Your task to perform on an android device: Search for "amazon basics triple a" on ebay, select the first entry, and add it to the cart. Image 0: 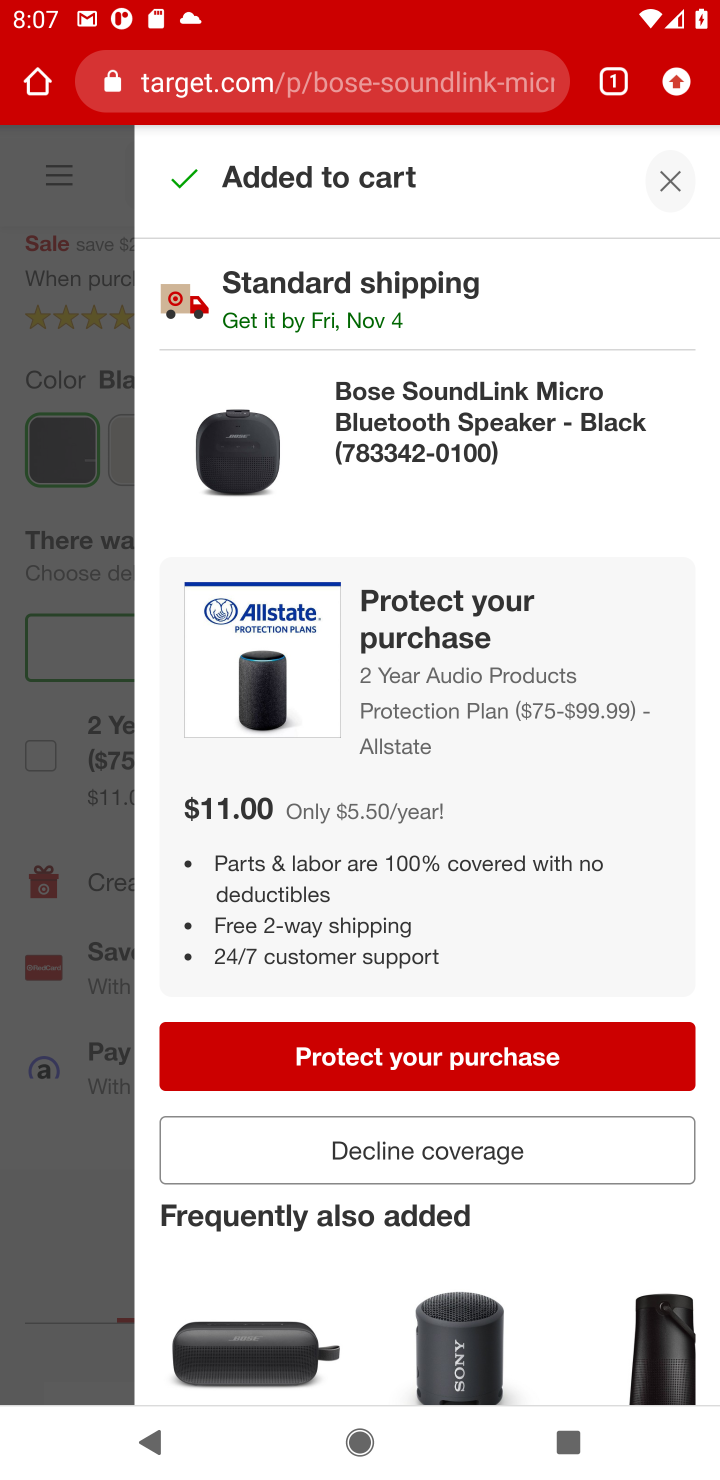
Step 0: click (232, 101)
Your task to perform on an android device: Search for "amazon basics triple a" on ebay, select the first entry, and add it to the cart. Image 1: 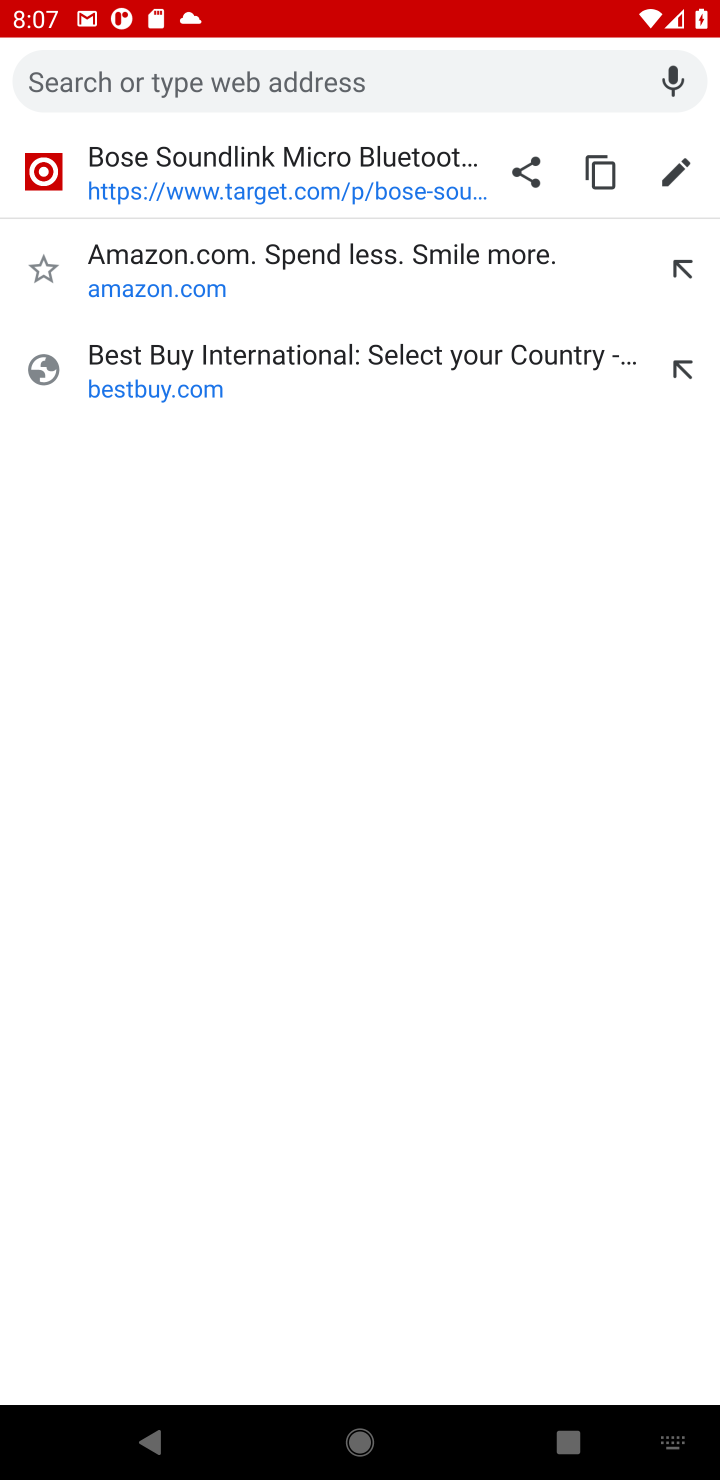
Step 1: type "ebay"
Your task to perform on an android device: Search for "amazon basics triple a" on ebay, select the first entry, and add it to the cart. Image 2: 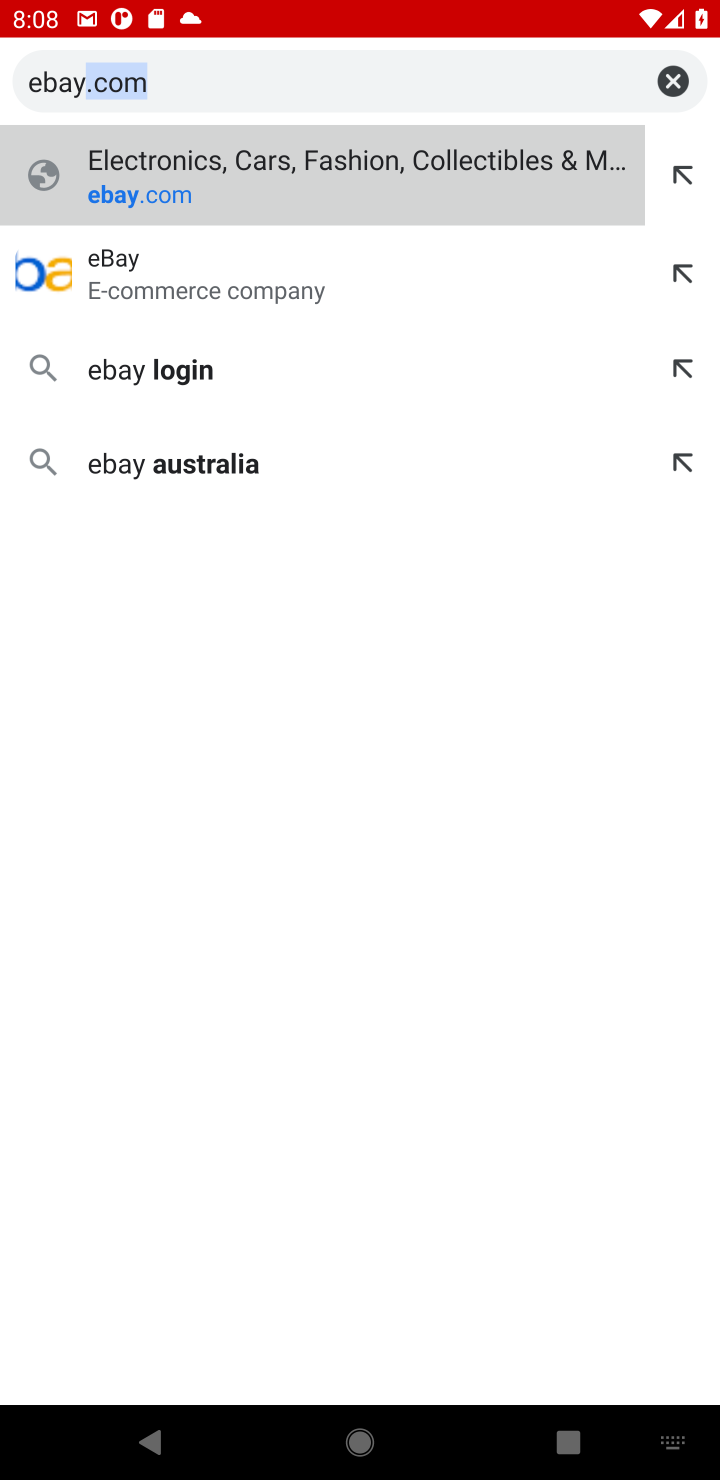
Step 2: click (310, 278)
Your task to perform on an android device: Search for "amazon basics triple a" on ebay, select the first entry, and add it to the cart. Image 3: 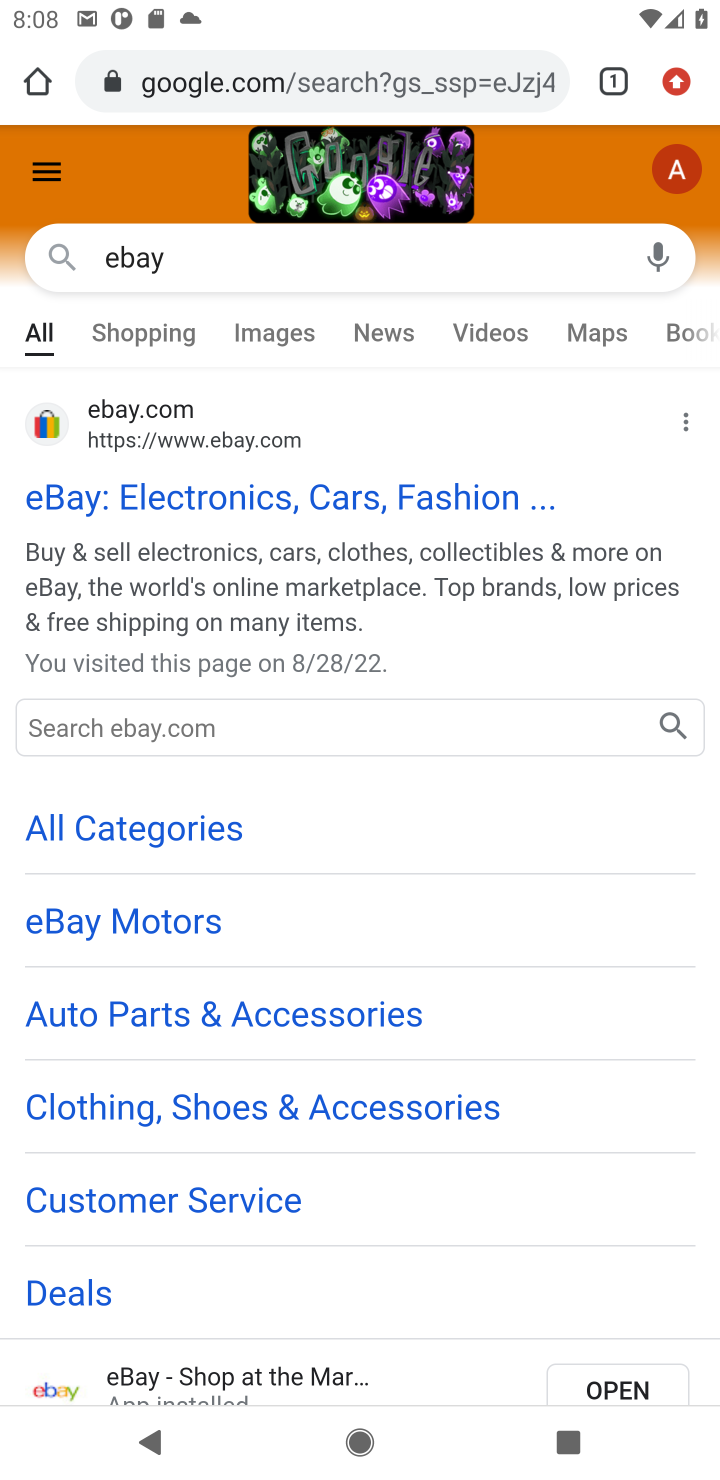
Step 3: click (239, 501)
Your task to perform on an android device: Search for "amazon basics triple a" on ebay, select the first entry, and add it to the cart. Image 4: 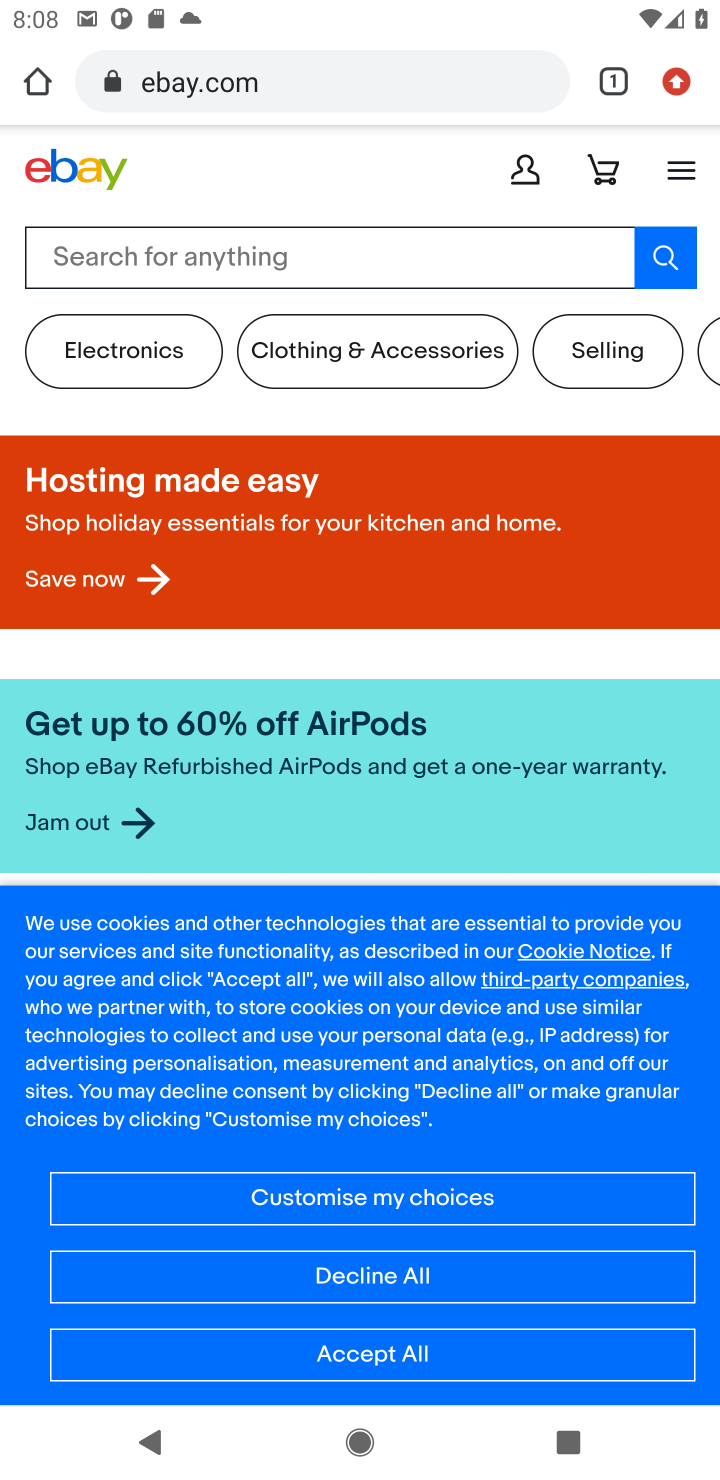
Step 4: click (196, 256)
Your task to perform on an android device: Search for "amazon basics triple a" on ebay, select the first entry, and add it to the cart. Image 5: 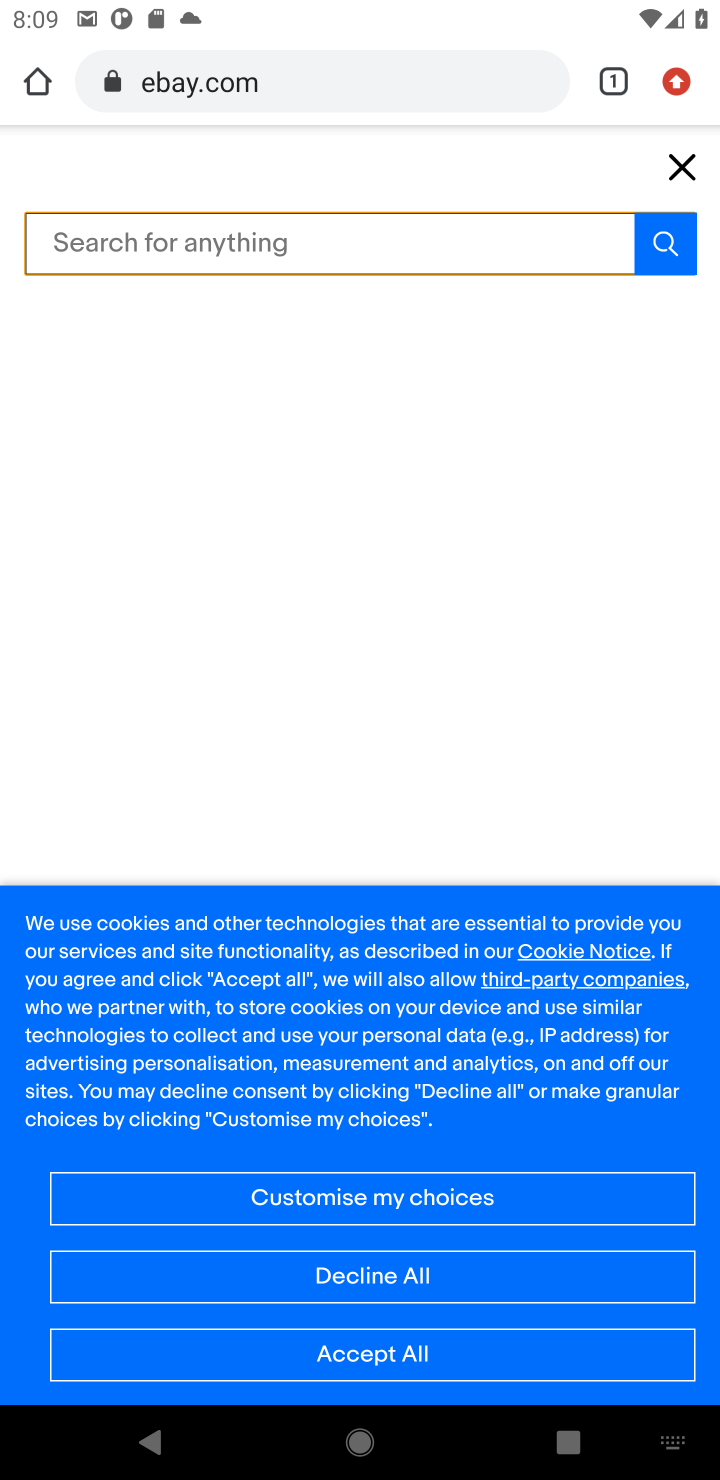
Step 5: type "amazon basics triple a"
Your task to perform on an android device: Search for "amazon basics triple a" on ebay, select the first entry, and add it to the cart. Image 6: 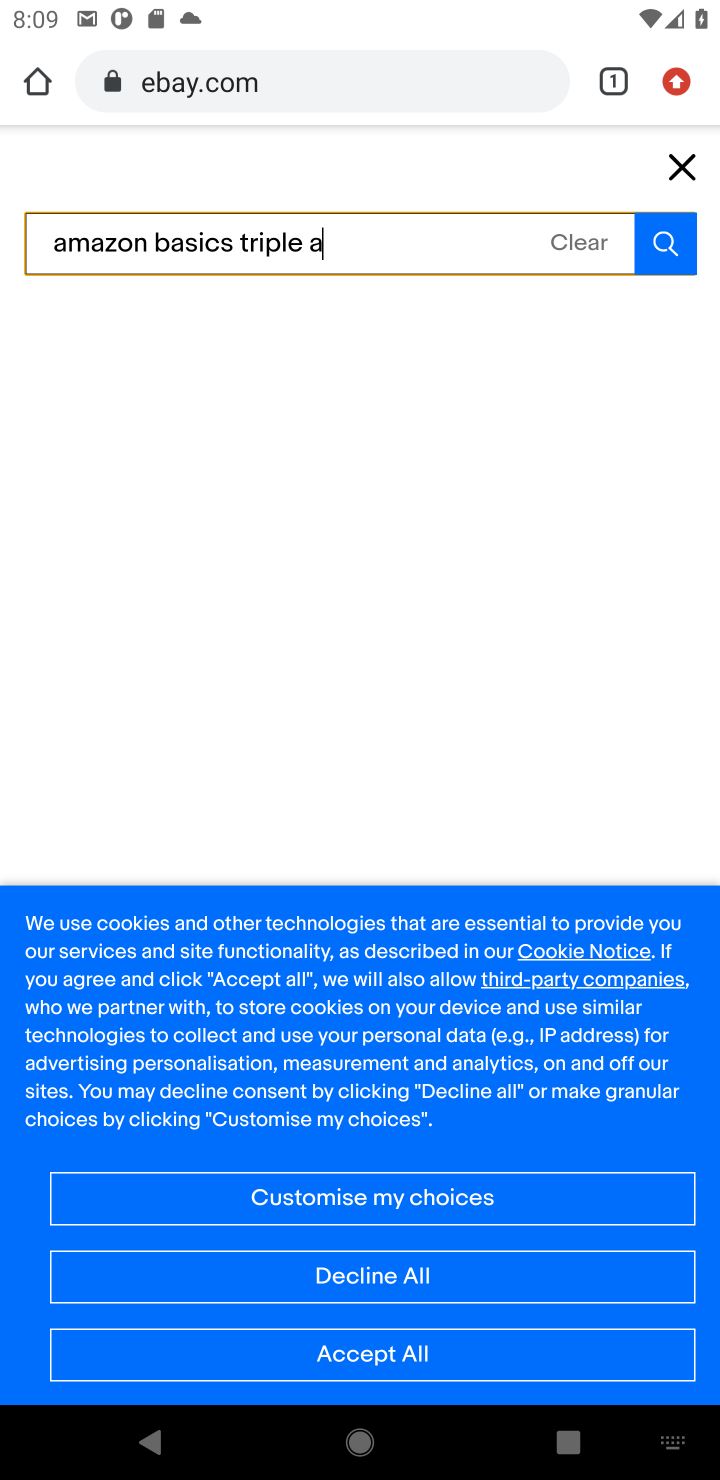
Step 6: click (684, 252)
Your task to perform on an android device: Search for "amazon basics triple a" on ebay, select the first entry, and add it to the cart. Image 7: 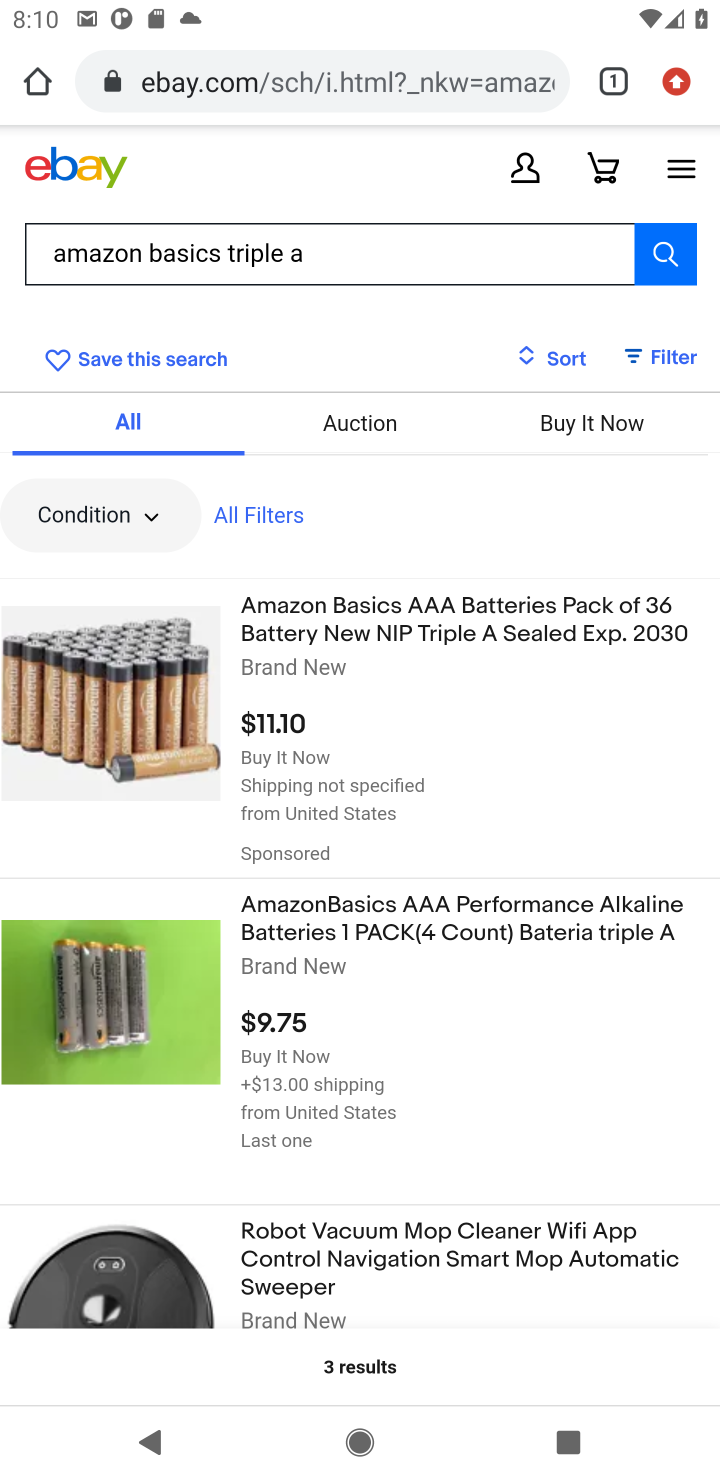
Step 7: click (262, 632)
Your task to perform on an android device: Search for "amazon basics triple a" on ebay, select the first entry, and add it to the cart. Image 8: 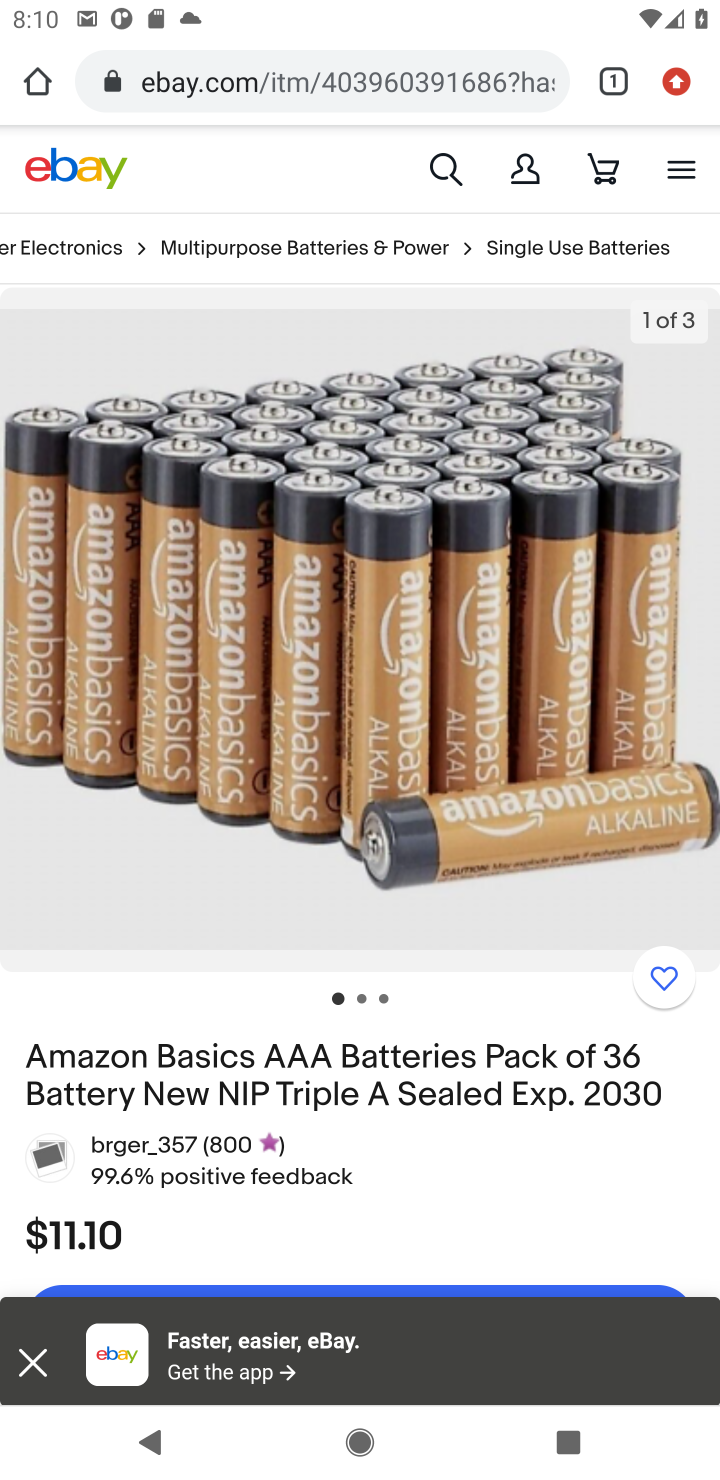
Step 8: click (19, 1357)
Your task to perform on an android device: Search for "amazon basics triple a" on ebay, select the first entry, and add it to the cart. Image 9: 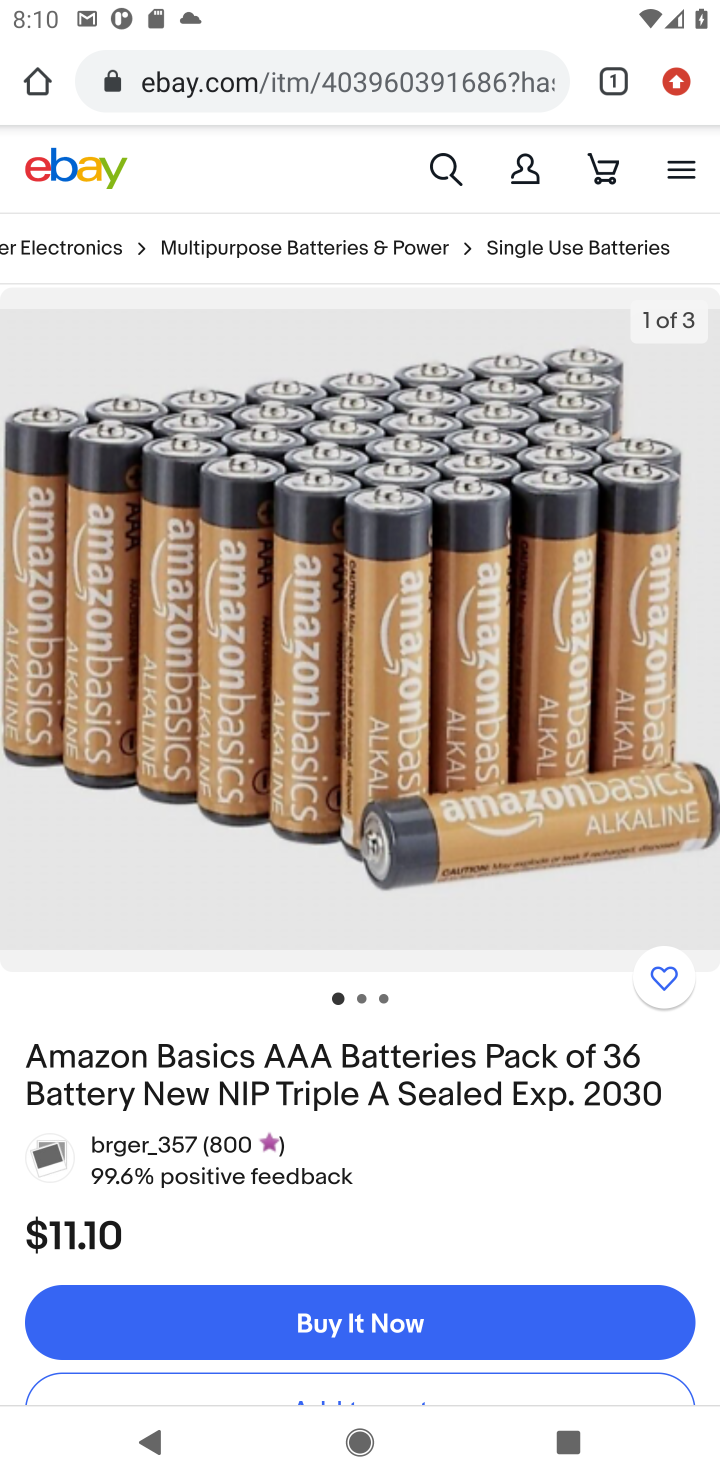
Step 9: drag from (361, 633) to (368, 448)
Your task to perform on an android device: Search for "amazon basics triple a" on ebay, select the first entry, and add it to the cart. Image 10: 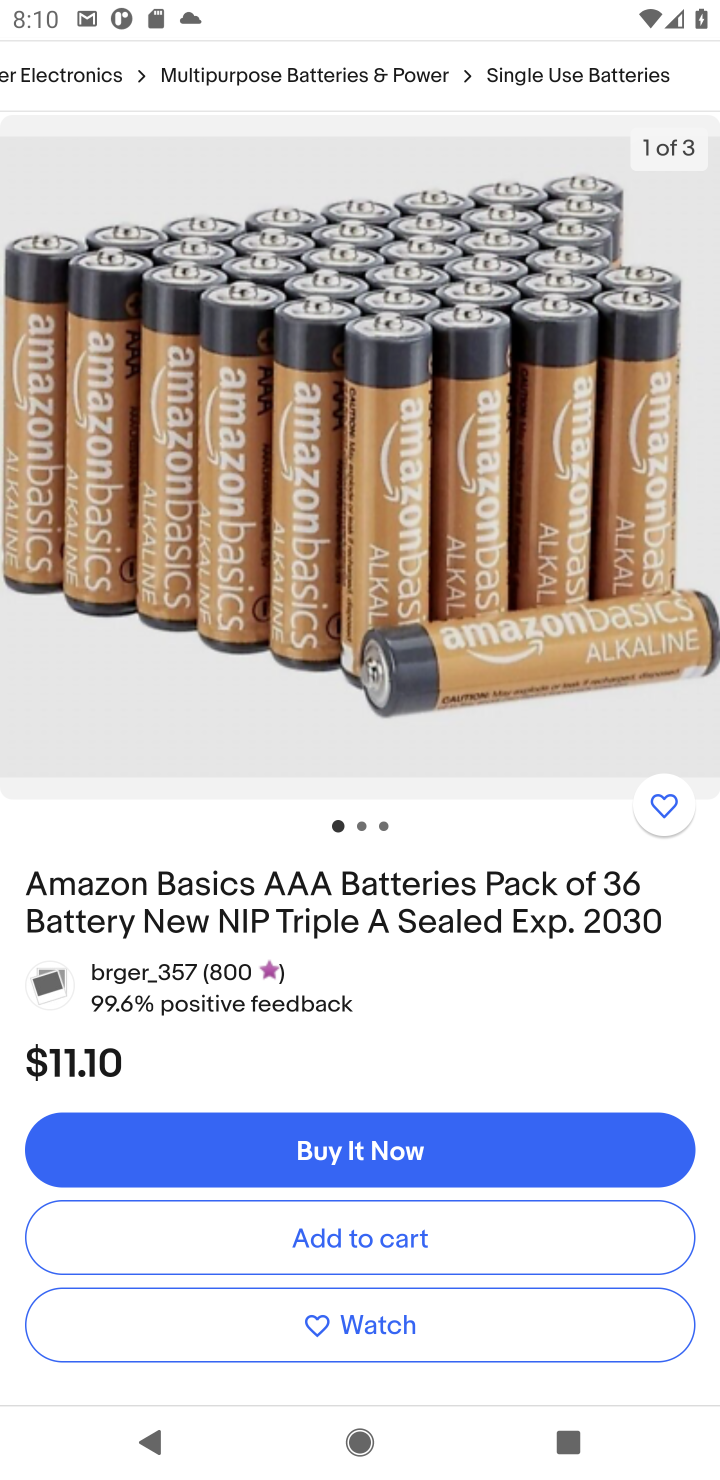
Step 10: click (355, 1238)
Your task to perform on an android device: Search for "amazon basics triple a" on ebay, select the first entry, and add it to the cart. Image 11: 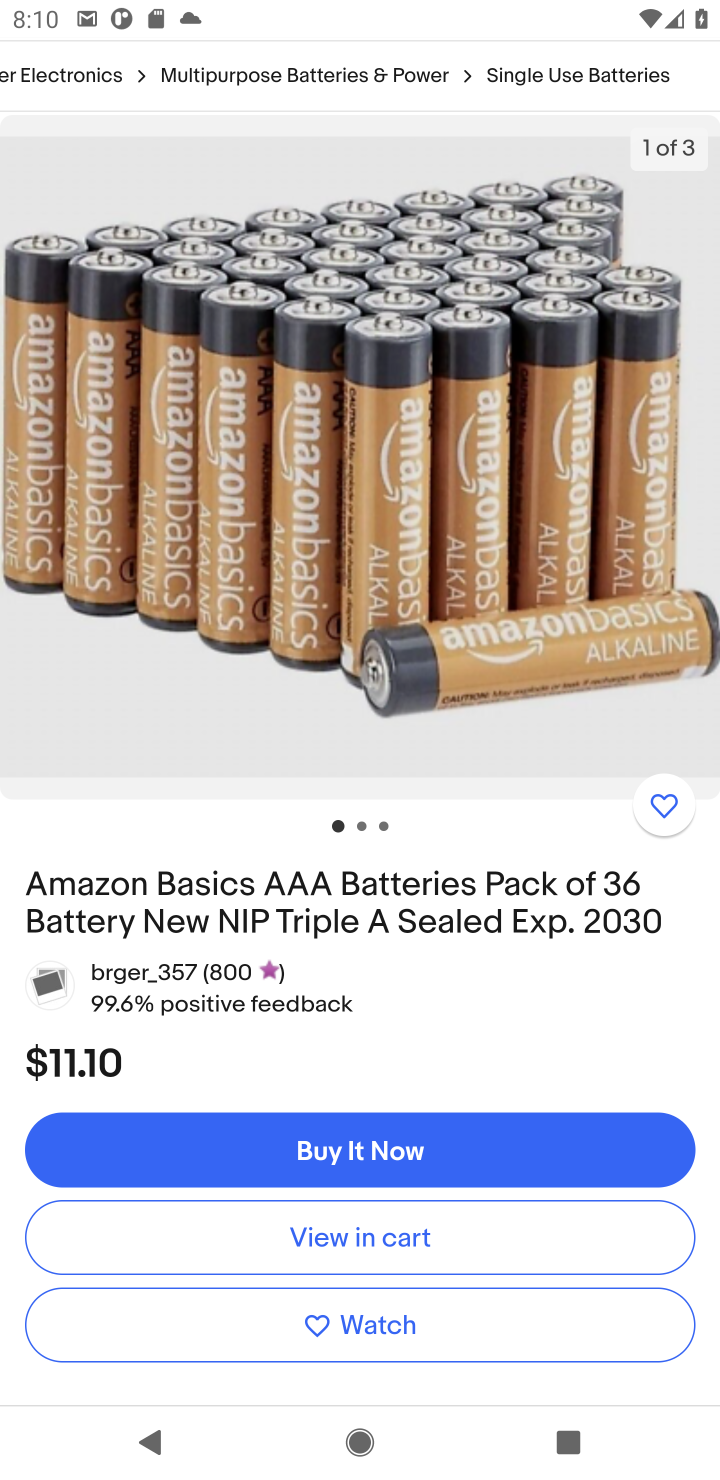
Step 11: task complete